Your task to perform on an android device: turn on translation in the chrome app Image 0: 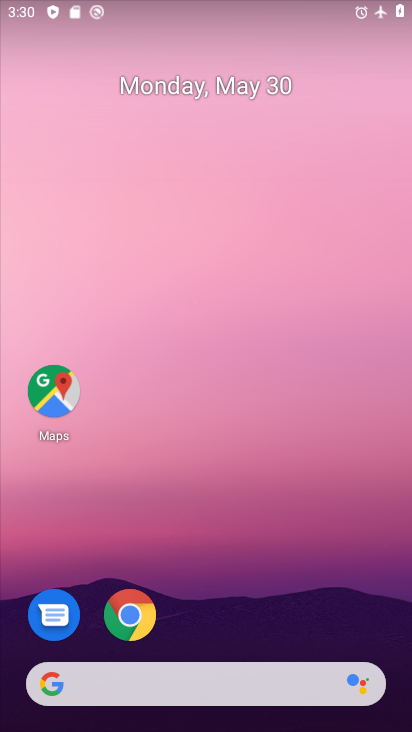
Step 0: click (144, 598)
Your task to perform on an android device: turn on translation in the chrome app Image 1: 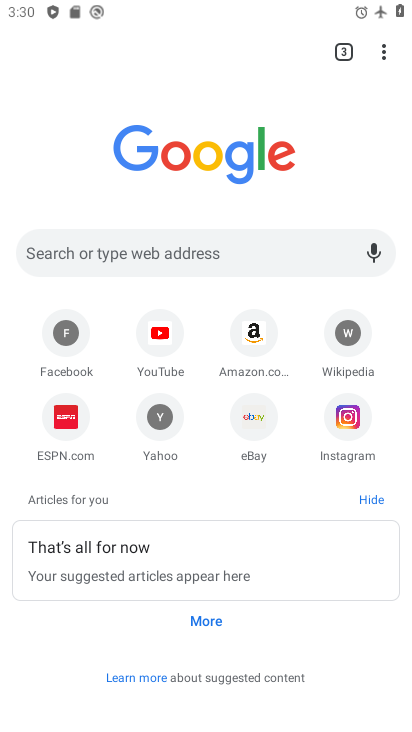
Step 1: click (385, 55)
Your task to perform on an android device: turn on translation in the chrome app Image 2: 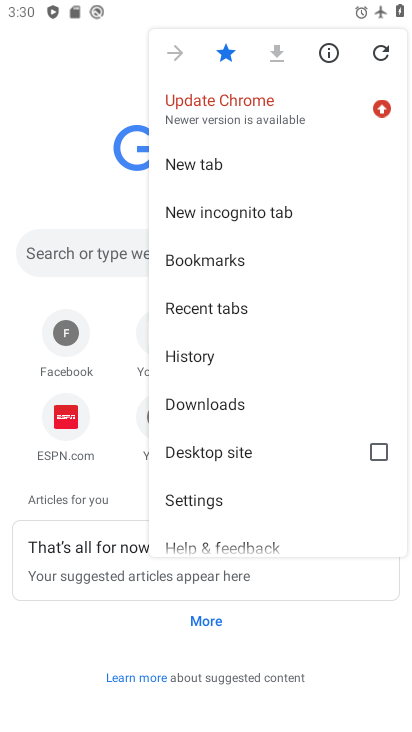
Step 2: click (209, 496)
Your task to perform on an android device: turn on translation in the chrome app Image 3: 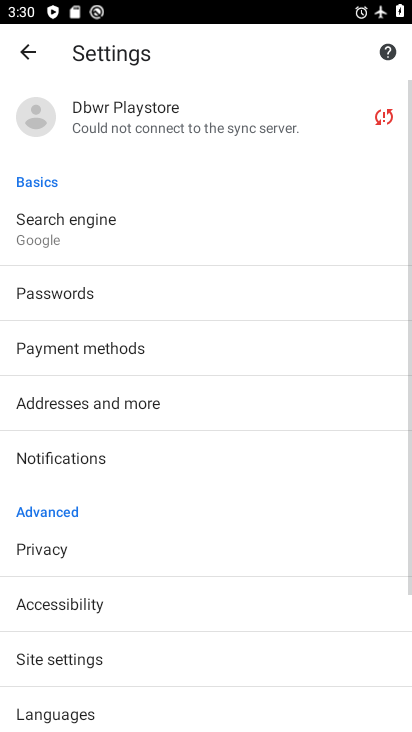
Step 3: drag from (195, 563) to (218, 354)
Your task to perform on an android device: turn on translation in the chrome app Image 4: 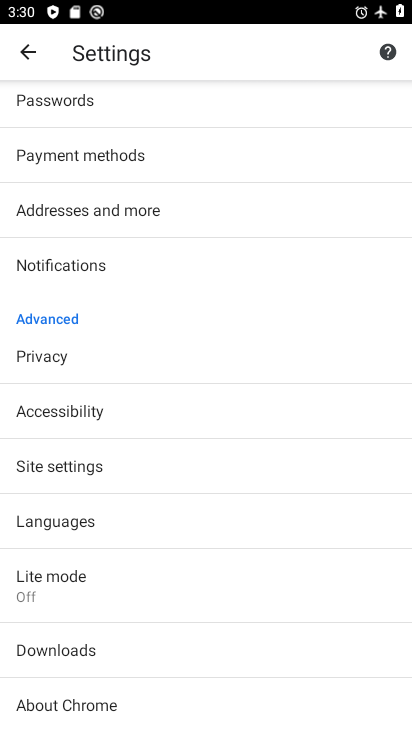
Step 4: click (199, 519)
Your task to perform on an android device: turn on translation in the chrome app Image 5: 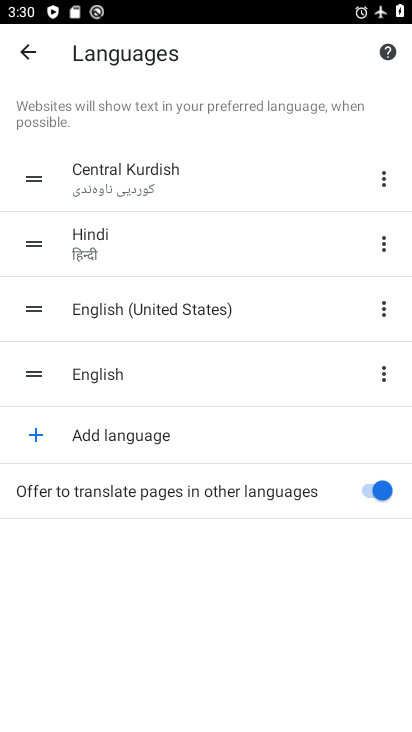
Step 5: task complete